Your task to perform on an android device: What's on my calendar tomorrow? Image 0: 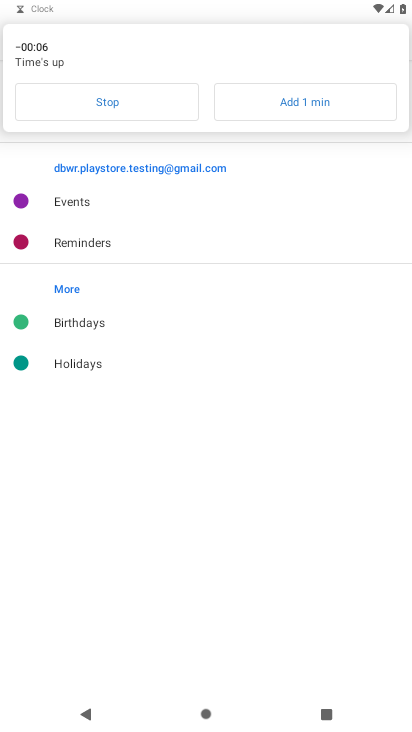
Step 0: click (118, 109)
Your task to perform on an android device: What's on my calendar tomorrow? Image 1: 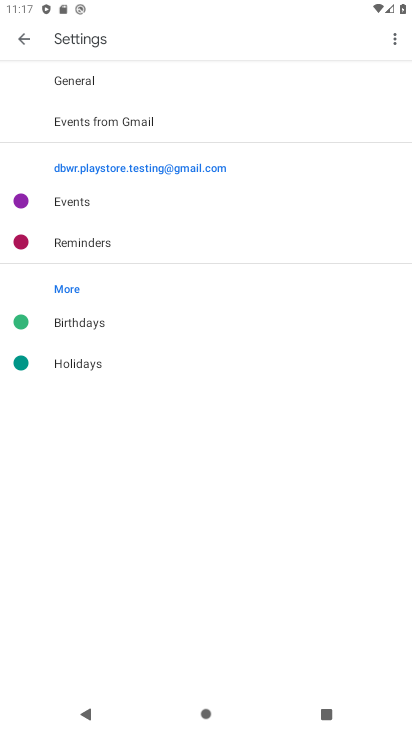
Step 1: click (31, 40)
Your task to perform on an android device: What's on my calendar tomorrow? Image 2: 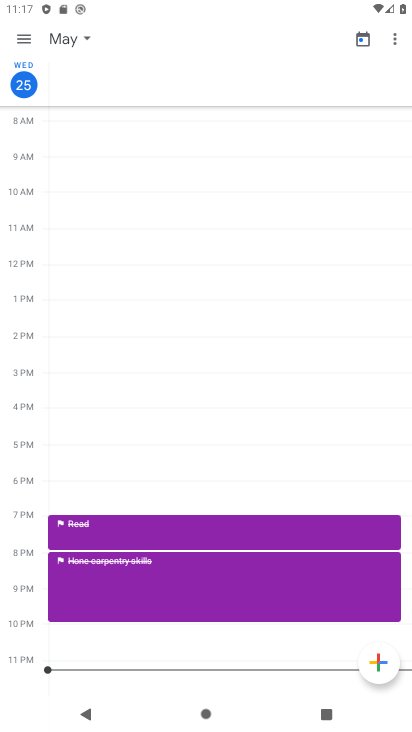
Step 2: click (18, 43)
Your task to perform on an android device: What's on my calendar tomorrow? Image 3: 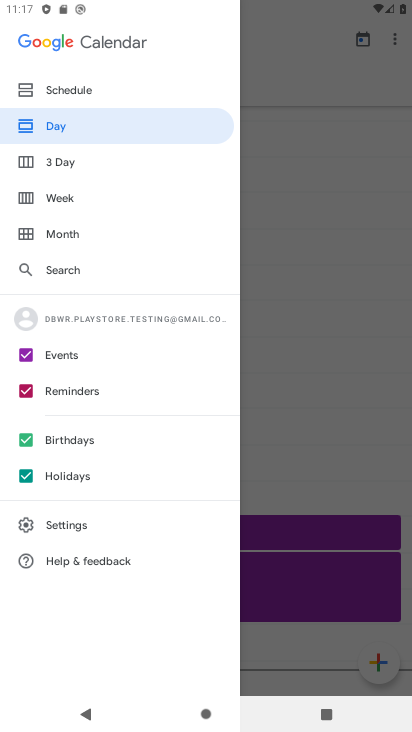
Step 3: click (18, 43)
Your task to perform on an android device: What's on my calendar tomorrow? Image 4: 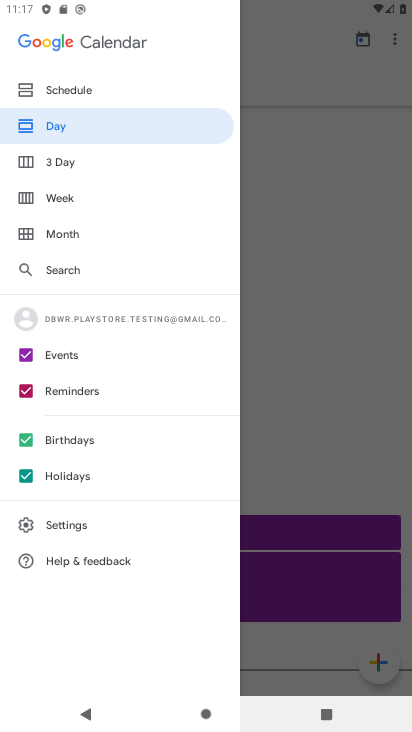
Step 4: click (282, 32)
Your task to perform on an android device: What's on my calendar tomorrow? Image 5: 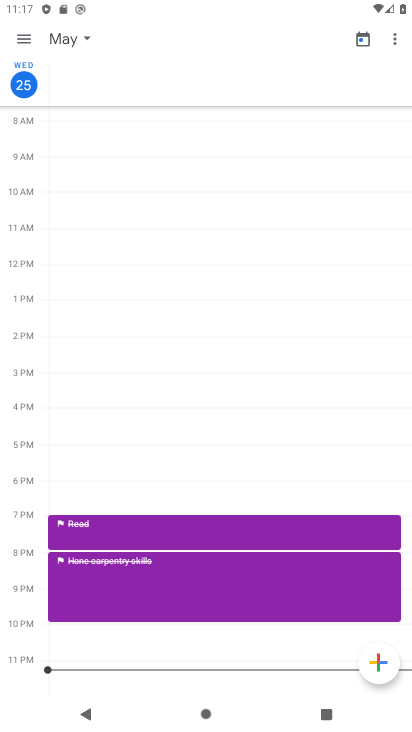
Step 5: click (74, 47)
Your task to perform on an android device: What's on my calendar tomorrow? Image 6: 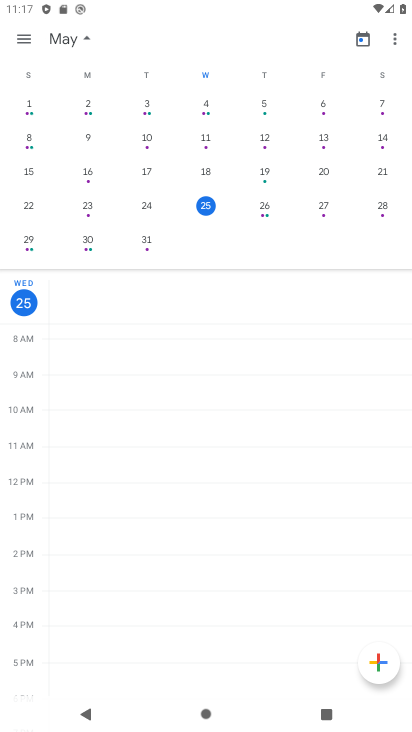
Step 6: click (261, 201)
Your task to perform on an android device: What's on my calendar tomorrow? Image 7: 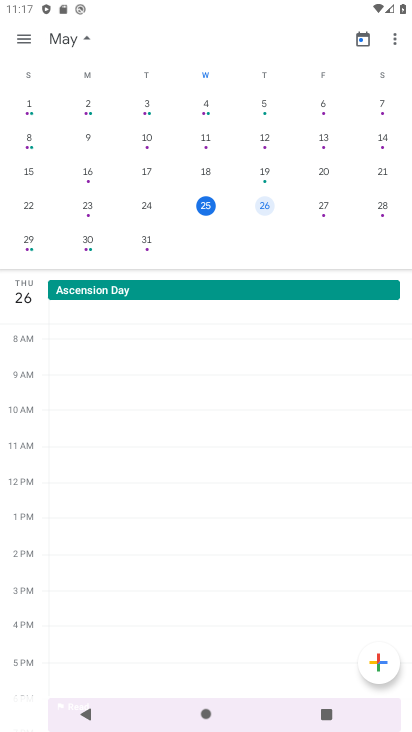
Step 7: task complete